Your task to perform on an android device: empty trash in the gmail app Image 0: 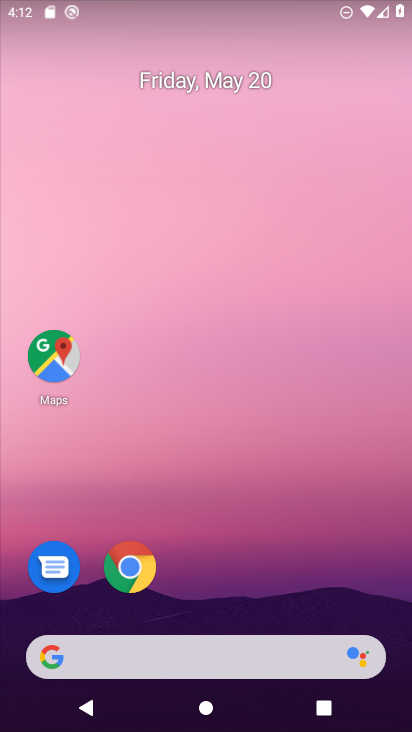
Step 0: drag from (223, 716) to (185, 128)
Your task to perform on an android device: empty trash in the gmail app Image 1: 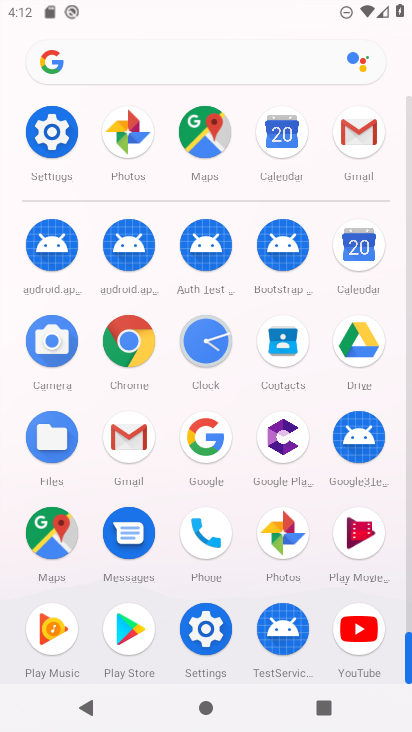
Step 1: click (131, 439)
Your task to perform on an android device: empty trash in the gmail app Image 2: 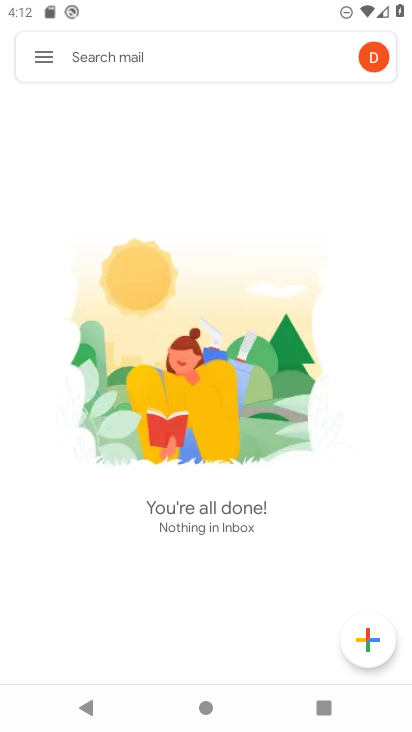
Step 2: click (43, 56)
Your task to perform on an android device: empty trash in the gmail app Image 3: 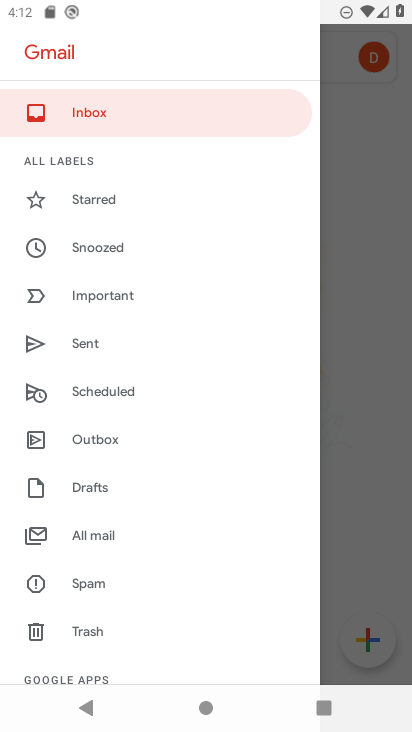
Step 3: click (94, 625)
Your task to perform on an android device: empty trash in the gmail app Image 4: 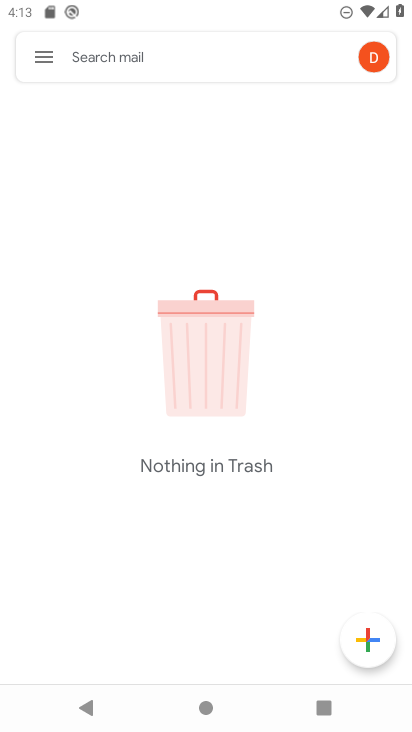
Step 4: task complete